Your task to perform on an android device: turn notification dots on Image 0: 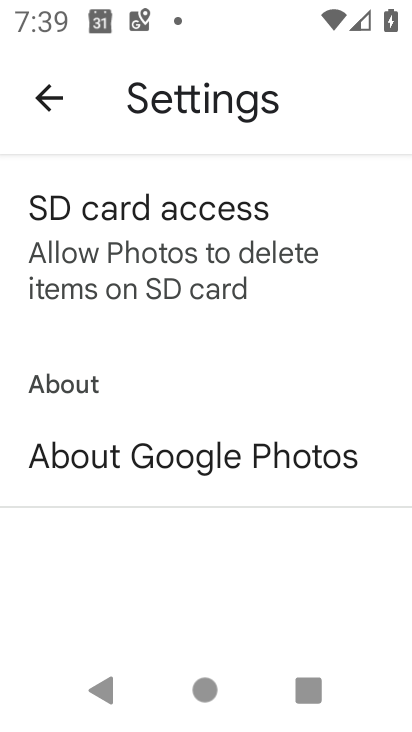
Step 0: press home button
Your task to perform on an android device: turn notification dots on Image 1: 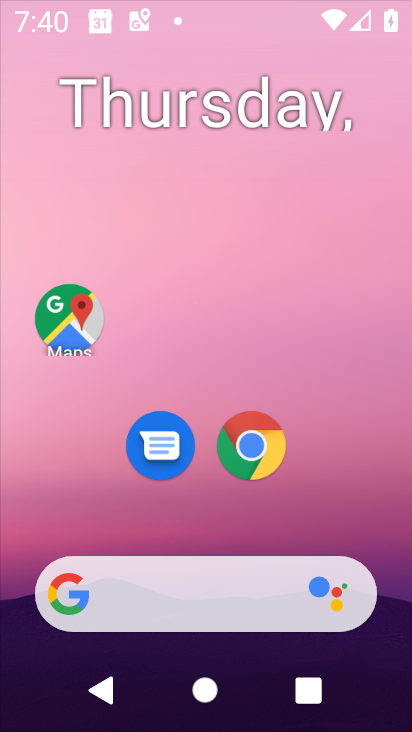
Step 1: drag from (395, 653) to (249, 11)
Your task to perform on an android device: turn notification dots on Image 2: 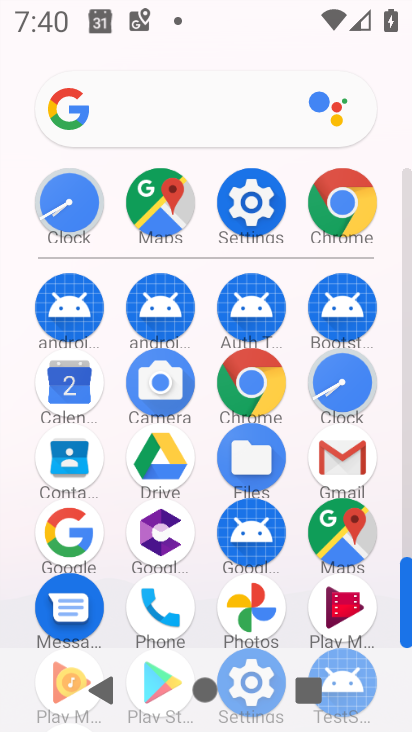
Step 2: click (254, 199)
Your task to perform on an android device: turn notification dots on Image 3: 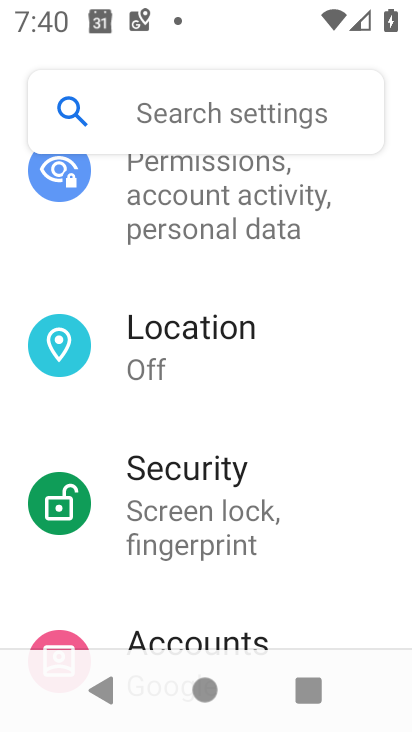
Step 3: drag from (244, 202) to (221, 701)
Your task to perform on an android device: turn notification dots on Image 4: 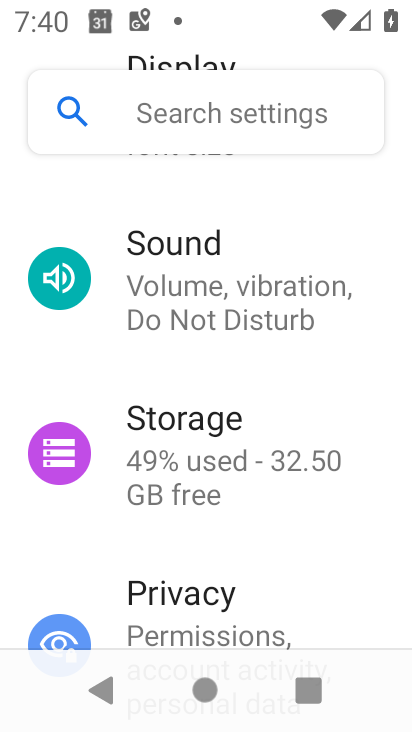
Step 4: drag from (163, 225) to (187, 728)
Your task to perform on an android device: turn notification dots on Image 5: 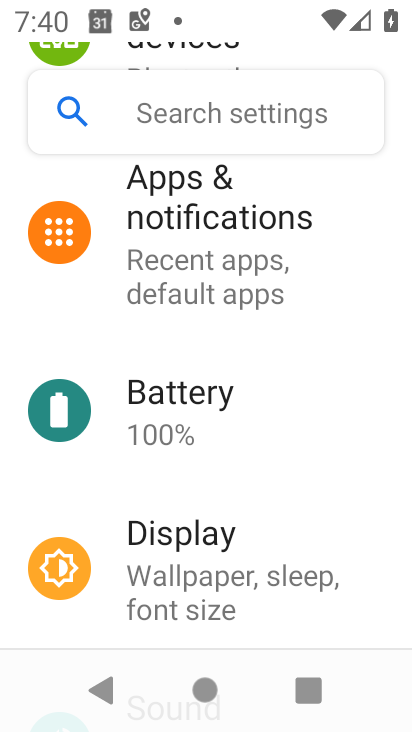
Step 5: click (248, 219)
Your task to perform on an android device: turn notification dots on Image 6: 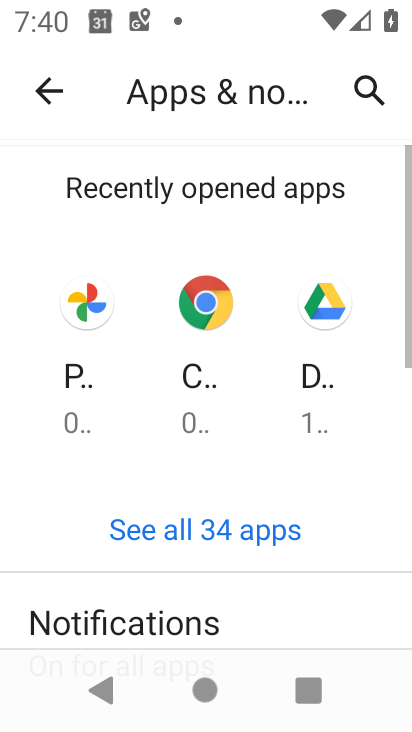
Step 6: click (177, 626)
Your task to perform on an android device: turn notification dots on Image 7: 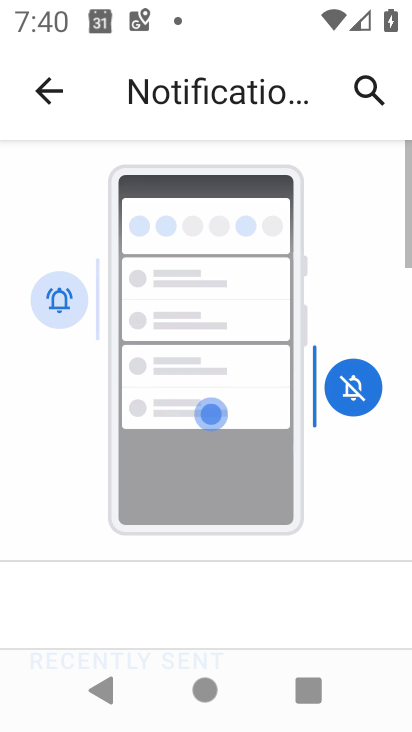
Step 7: drag from (177, 626) to (252, 86)
Your task to perform on an android device: turn notification dots on Image 8: 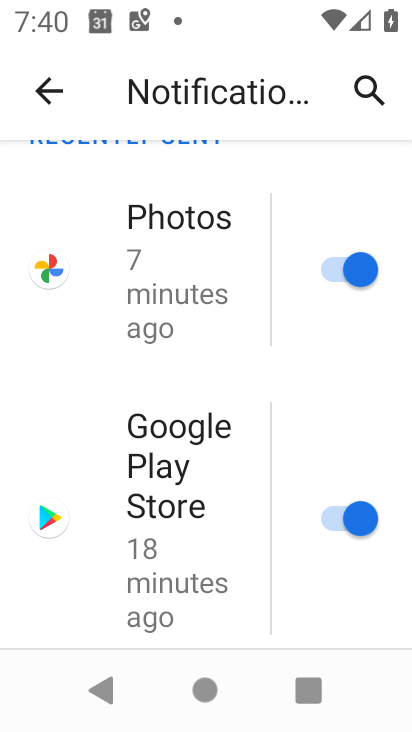
Step 8: drag from (151, 624) to (172, 35)
Your task to perform on an android device: turn notification dots on Image 9: 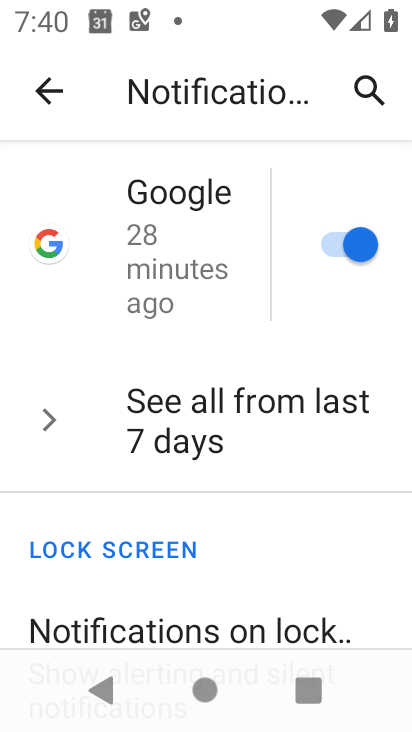
Step 9: drag from (143, 597) to (214, 61)
Your task to perform on an android device: turn notification dots on Image 10: 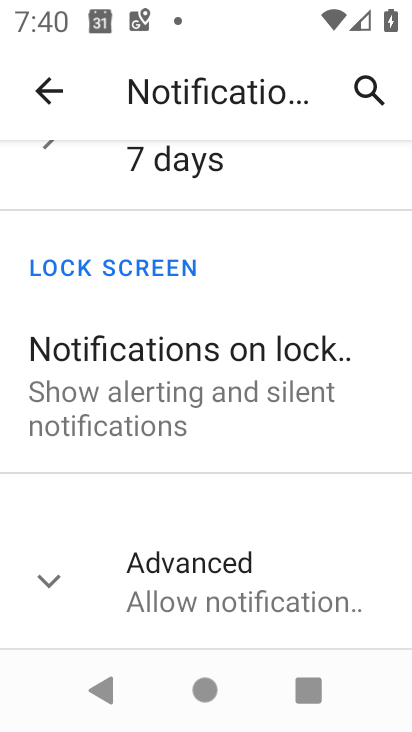
Step 10: click (91, 601)
Your task to perform on an android device: turn notification dots on Image 11: 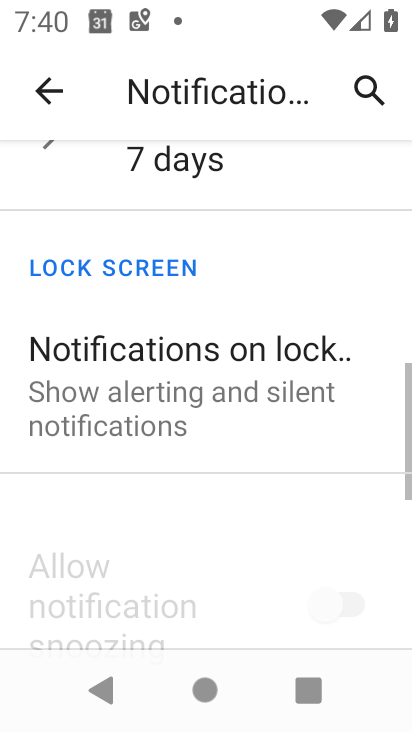
Step 11: drag from (189, 589) to (247, 201)
Your task to perform on an android device: turn notification dots on Image 12: 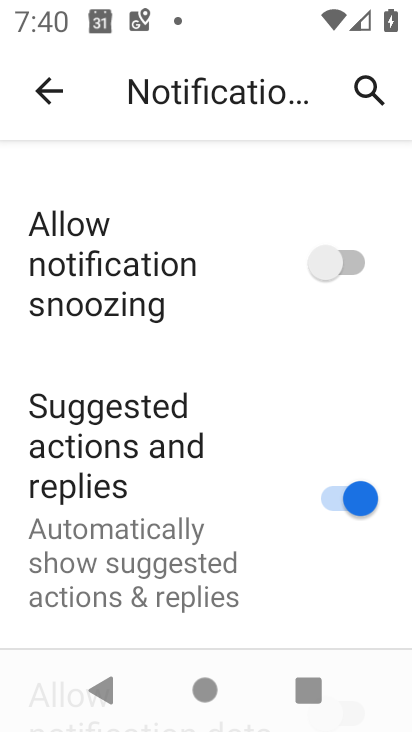
Step 12: drag from (210, 556) to (269, 102)
Your task to perform on an android device: turn notification dots on Image 13: 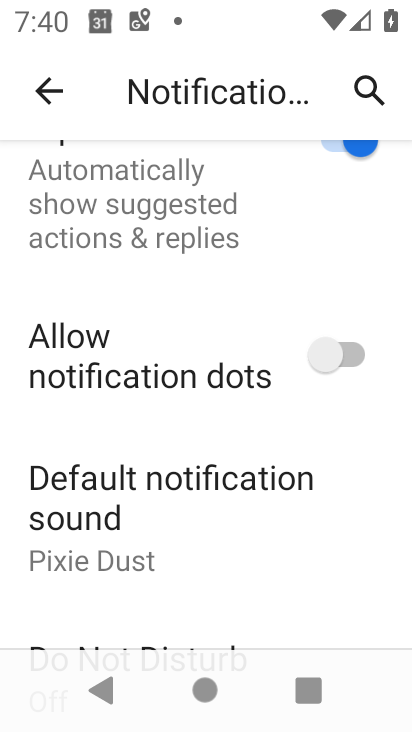
Step 13: click (314, 343)
Your task to perform on an android device: turn notification dots on Image 14: 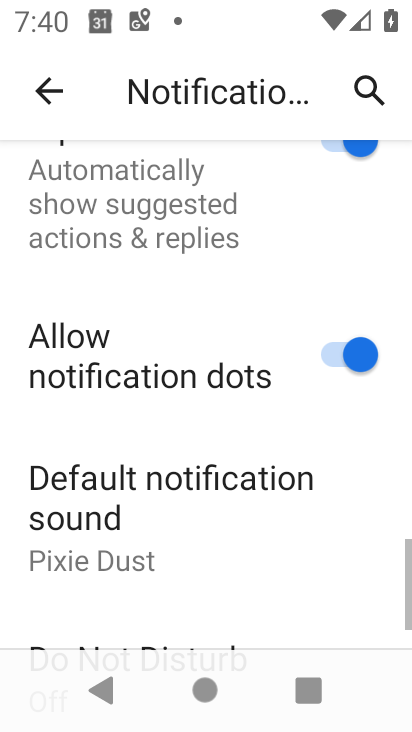
Step 14: task complete